Your task to perform on an android device: open chrome and create a bookmark for the current page Image 0: 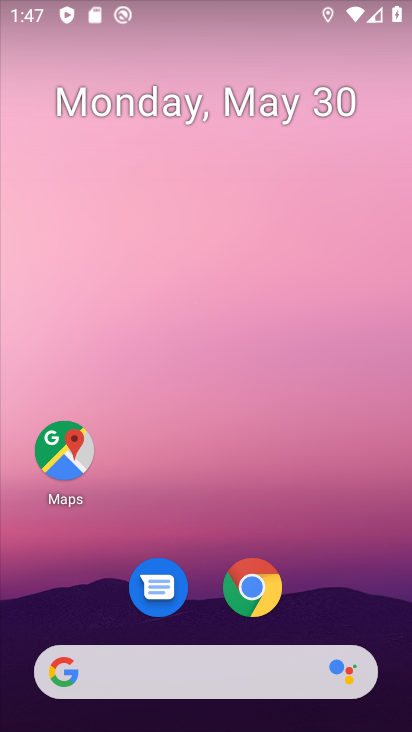
Step 0: click (255, 594)
Your task to perform on an android device: open chrome and create a bookmark for the current page Image 1: 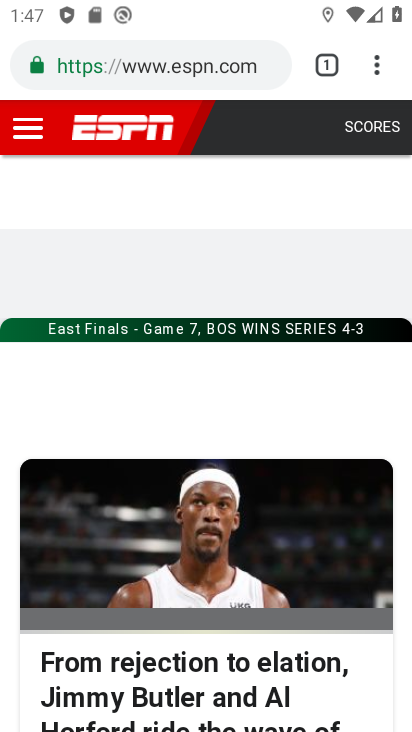
Step 1: click (374, 65)
Your task to perform on an android device: open chrome and create a bookmark for the current page Image 2: 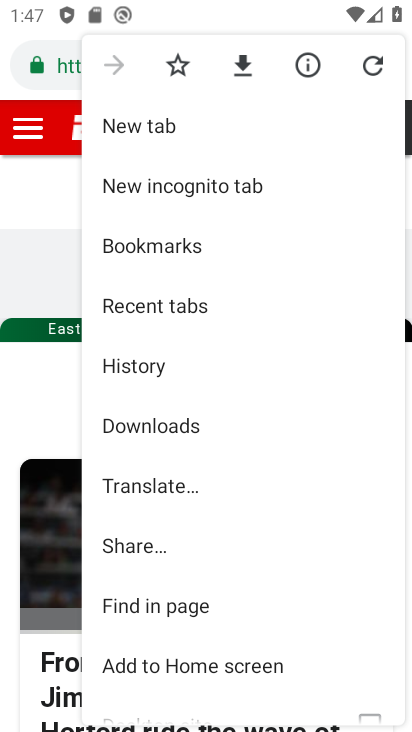
Step 2: click (173, 73)
Your task to perform on an android device: open chrome and create a bookmark for the current page Image 3: 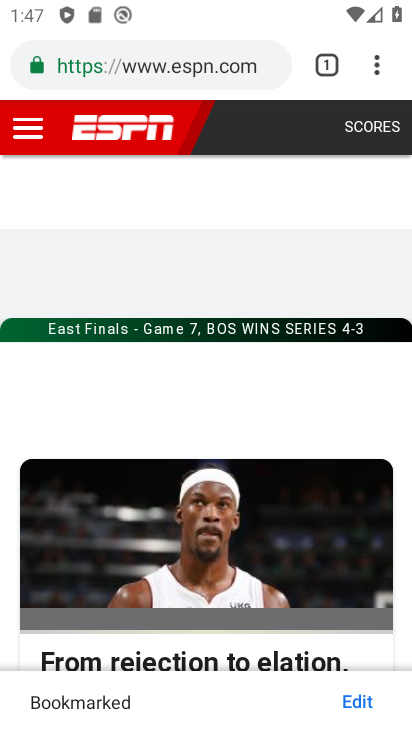
Step 3: click (377, 71)
Your task to perform on an android device: open chrome and create a bookmark for the current page Image 4: 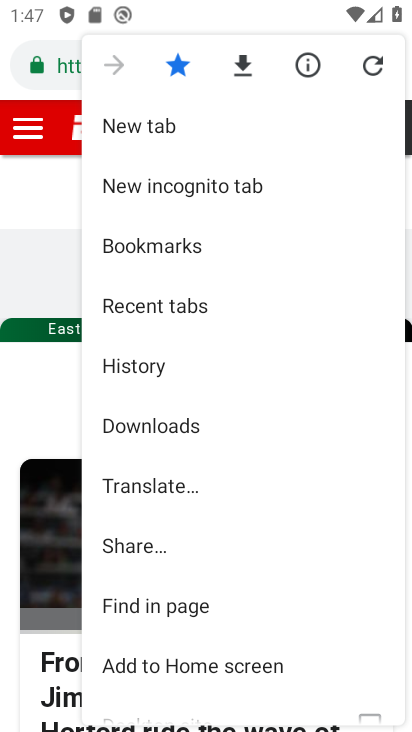
Step 4: task complete